Your task to perform on an android device: search for starred emails in the gmail app Image 0: 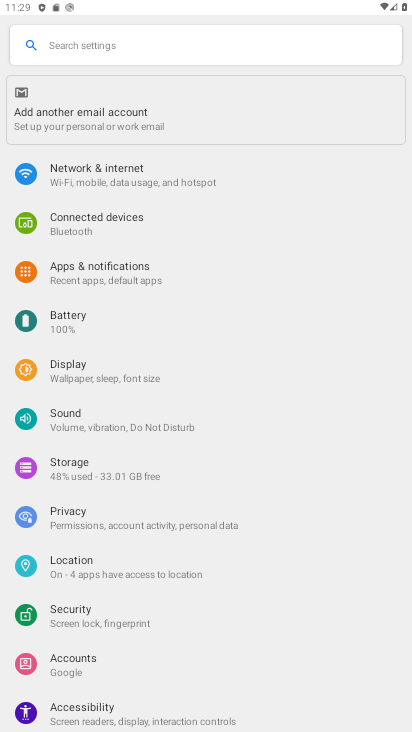
Step 0: press home button
Your task to perform on an android device: search for starred emails in the gmail app Image 1: 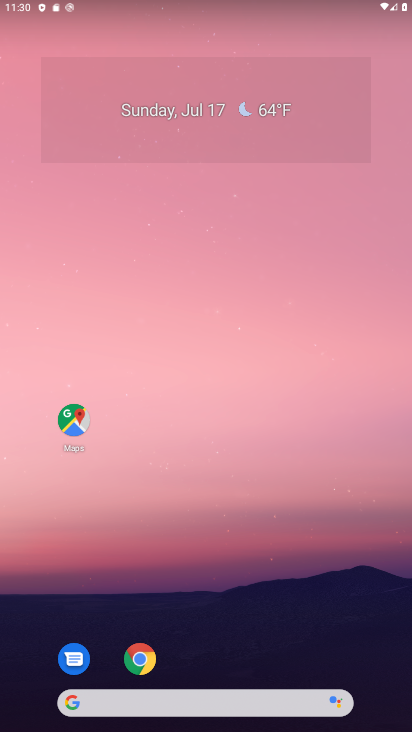
Step 1: drag from (200, 476) to (216, 280)
Your task to perform on an android device: search for starred emails in the gmail app Image 2: 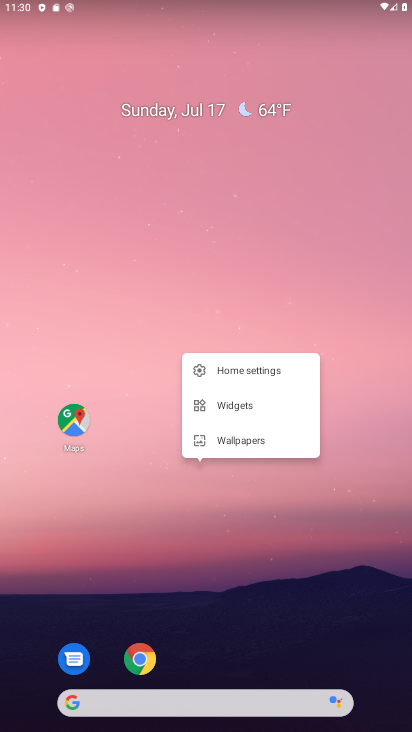
Step 2: click (276, 556)
Your task to perform on an android device: search for starred emails in the gmail app Image 3: 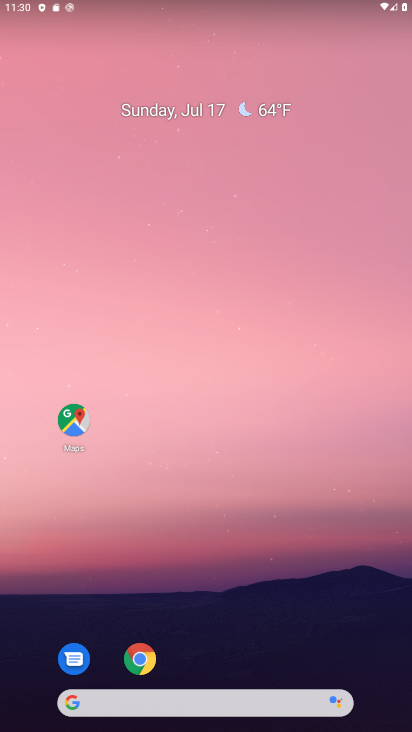
Step 3: drag from (276, 556) to (293, 216)
Your task to perform on an android device: search for starred emails in the gmail app Image 4: 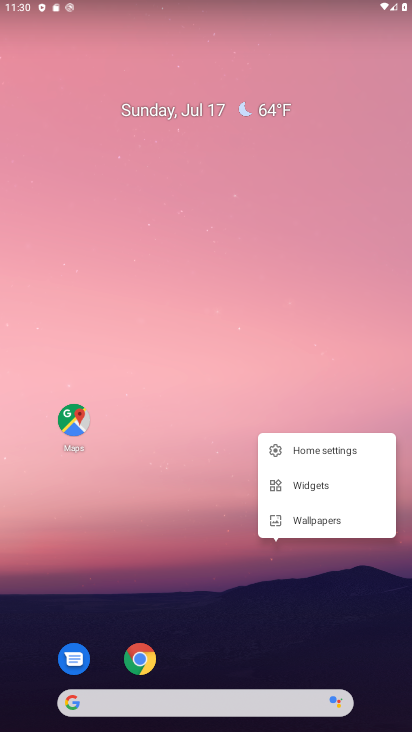
Step 4: click (138, 376)
Your task to perform on an android device: search for starred emails in the gmail app Image 5: 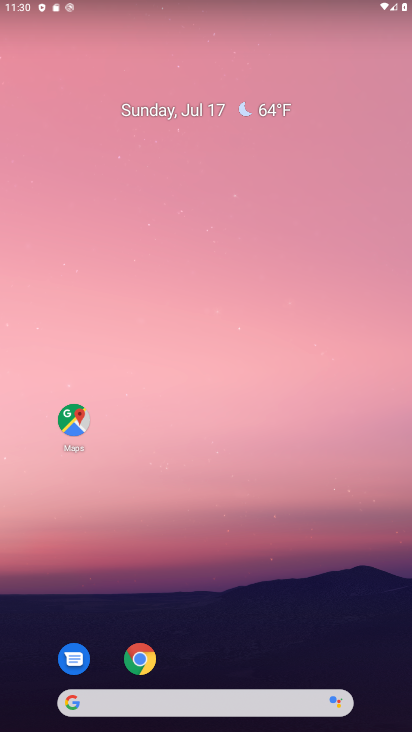
Step 5: drag from (198, 617) to (248, 330)
Your task to perform on an android device: search for starred emails in the gmail app Image 6: 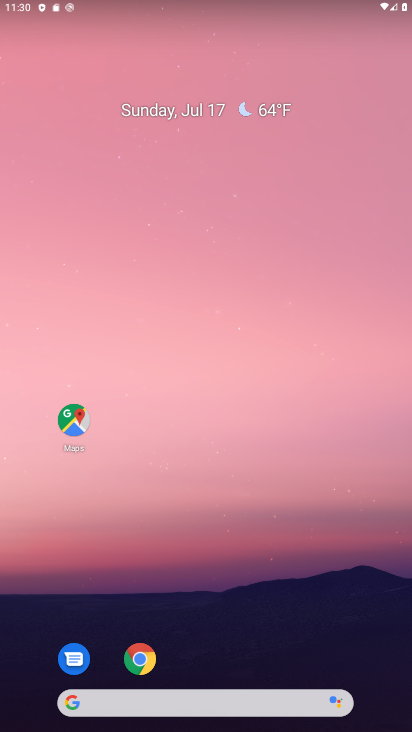
Step 6: drag from (189, 471) to (250, 249)
Your task to perform on an android device: search for starred emails in the gmail app Image 7: 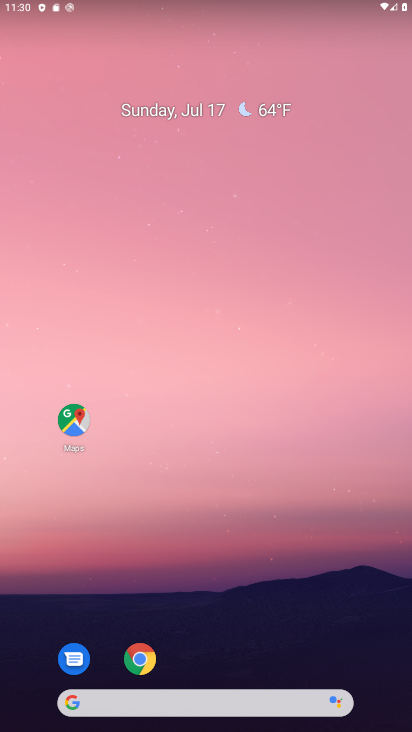
Step 7: drag from (214, 640) to (199, 246)
Your task to perform on an android device: search for starred emails in the gmail app Image 8: 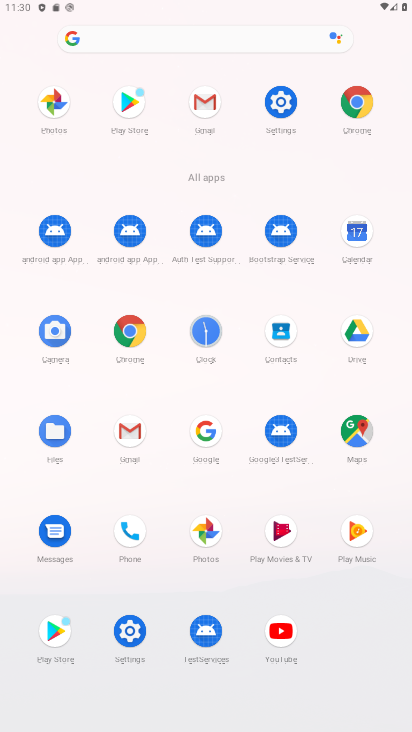
Step 8: click (133, 439)
Your task to perform on an android device: search for starred emails in the gmail app Image 9: 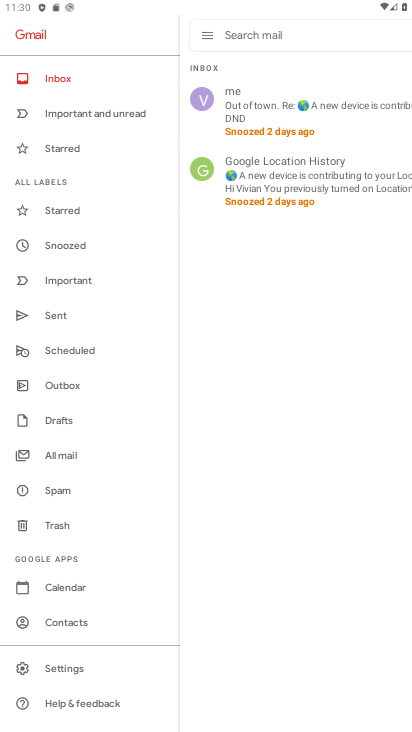
Step 9: click (61, 209)
Your task to perform on an android device: search for starred emails in the gmail app Image 10: 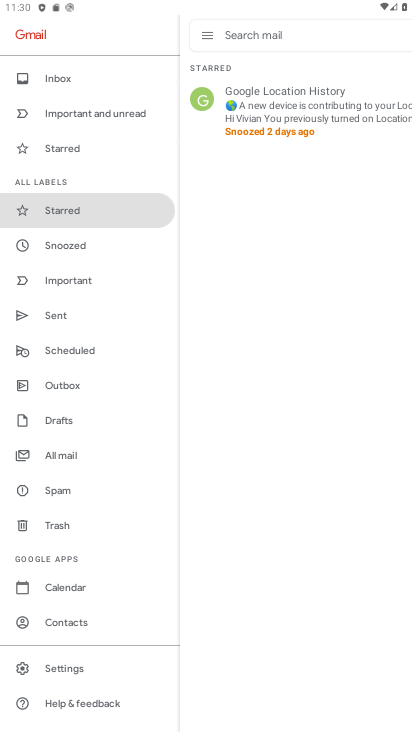
Step 10: task complete